Your task to perform on an android device: Add usb-c to usb-b to the cart on costco Image 0: 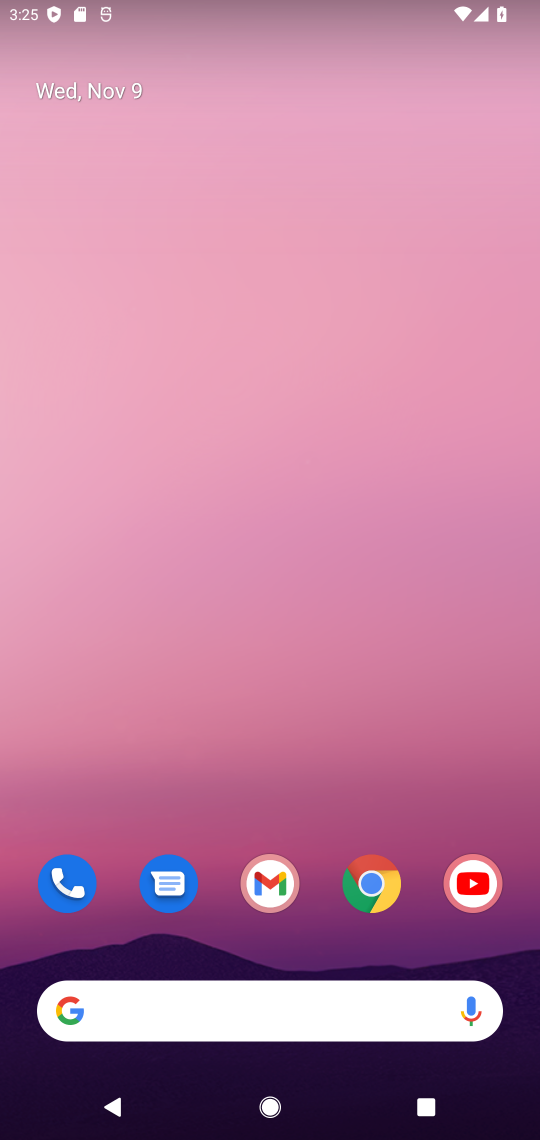
Step 0: click (380, 873)
Your task to perform on an android device: Add usb-c to usb-b to the cart on costco Image 1: 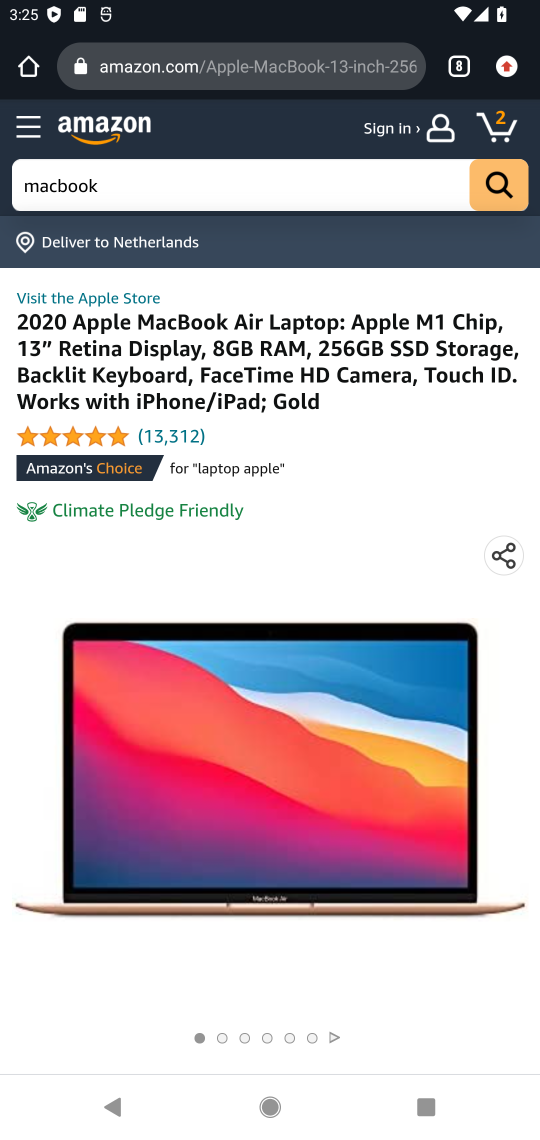
Step 1: click (460, 71)
Your task to perform on an android device: Add usb-c to usb-b to the cart on costco Image 2: 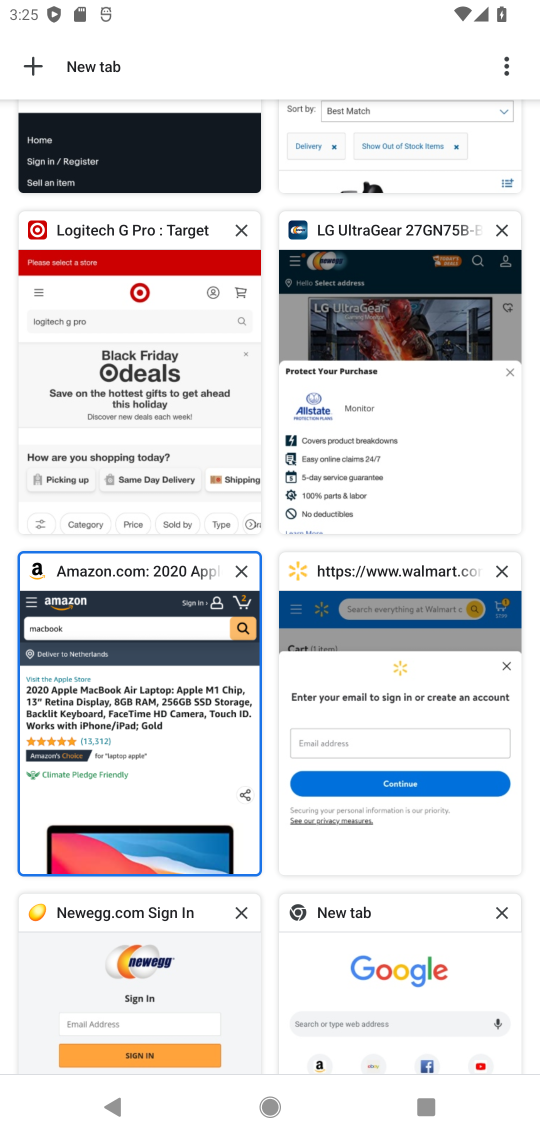
Step 2: drag from (347, 162) to (301, 628)
Your task to perform on an android device: Add usb-c to usb-b to the cart on costco Image 3: 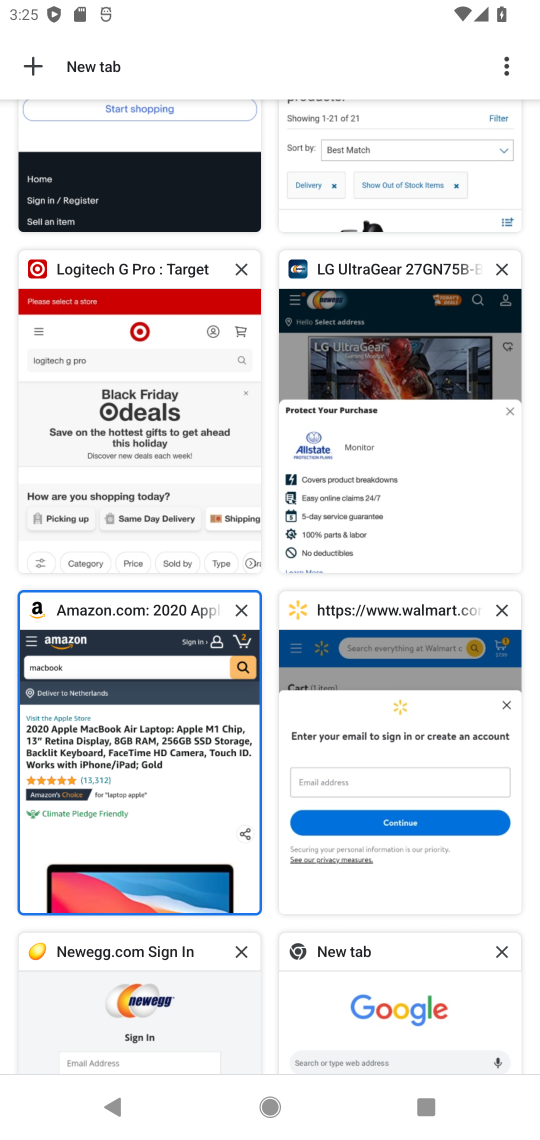
Step 3: click (393, 143)
Your task to perform on an android device: Add usb-c to usb-b to the cart on costco Image 4: 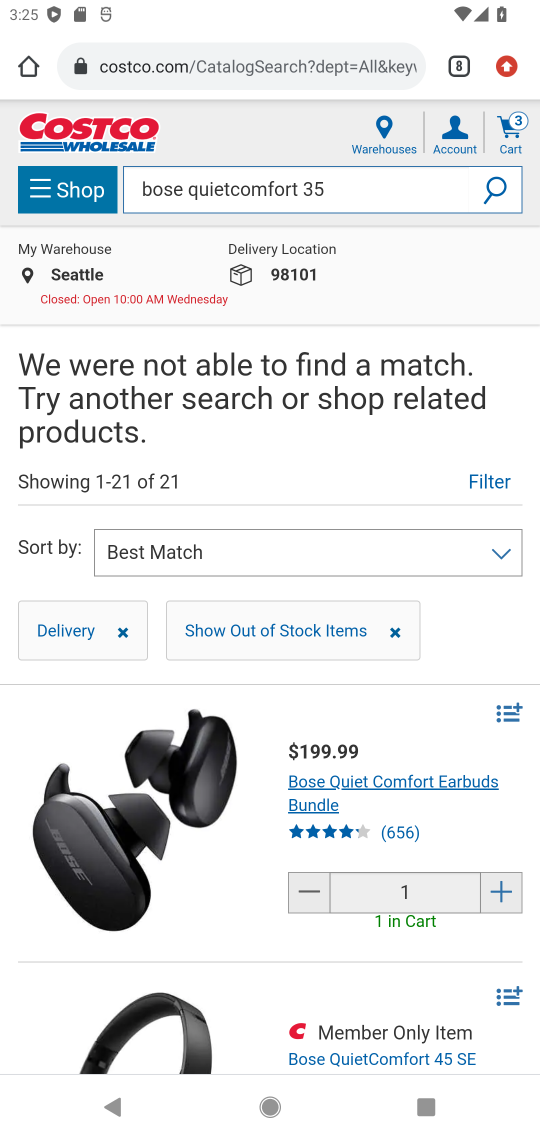
Step 4: click (256, 191)
Your task to perform on an android device: Add usb-c to usb-b to the cart on costco Image 5: 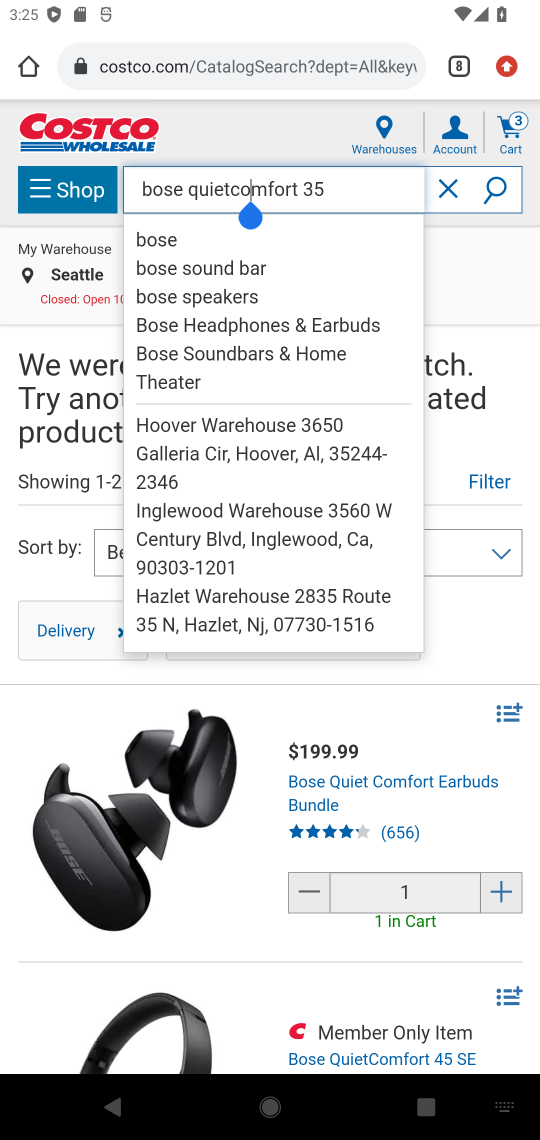
Step 5: click (451, 182)
Your task to perform on an android device: Add usb-c to usb-b to the cart on costco Image 6: 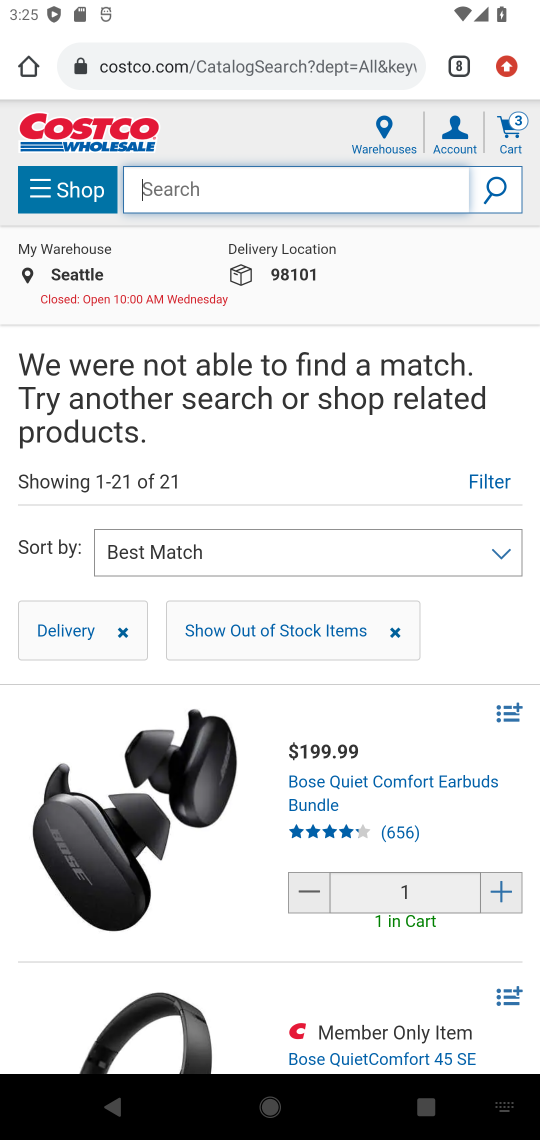
Step 6: type "usb-c to usb-b"
Your task to perform on an android device: Add usb-c to usb-b to the cart on costco Image 7: 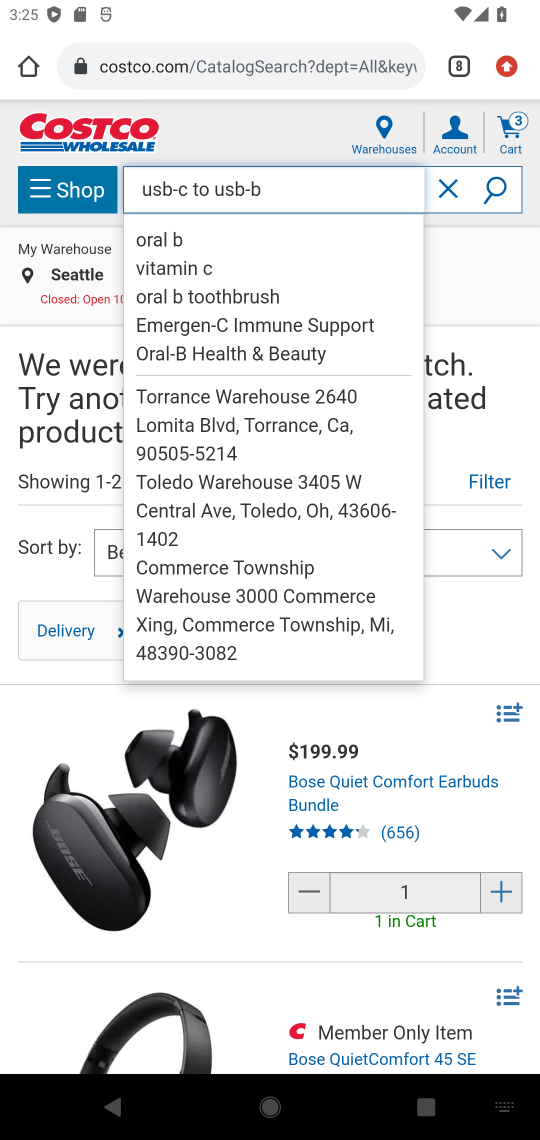
Step 7: click (490, 187)
Your task to perform on an android device: Add usb-c to usb-b to the cart on costco Image 8: 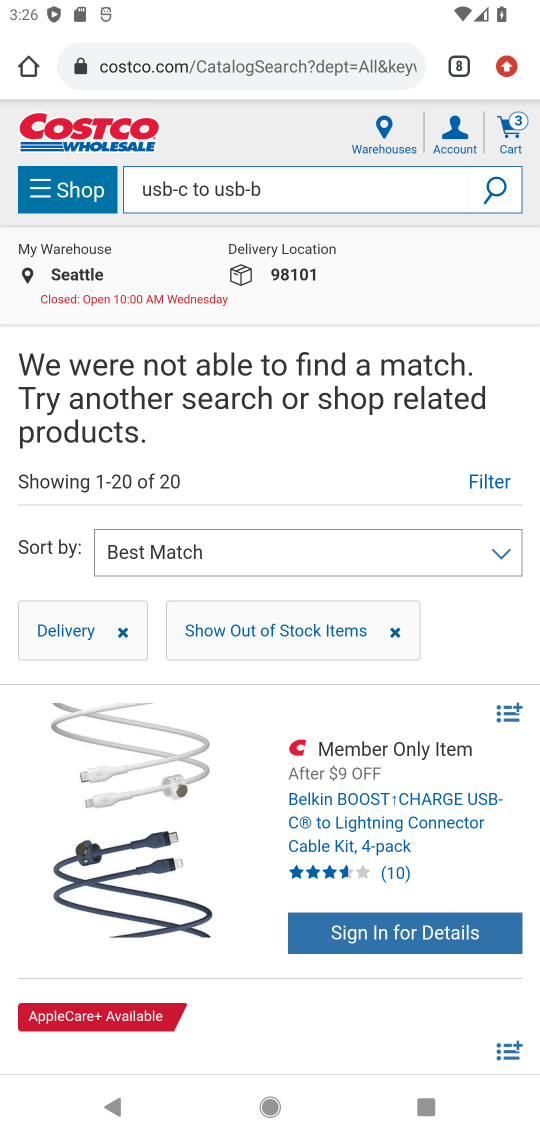
Step 8: click (349, 816)
Your task to perform on an android device: Add usb-c to usb-b to the cart on costco Image 9: 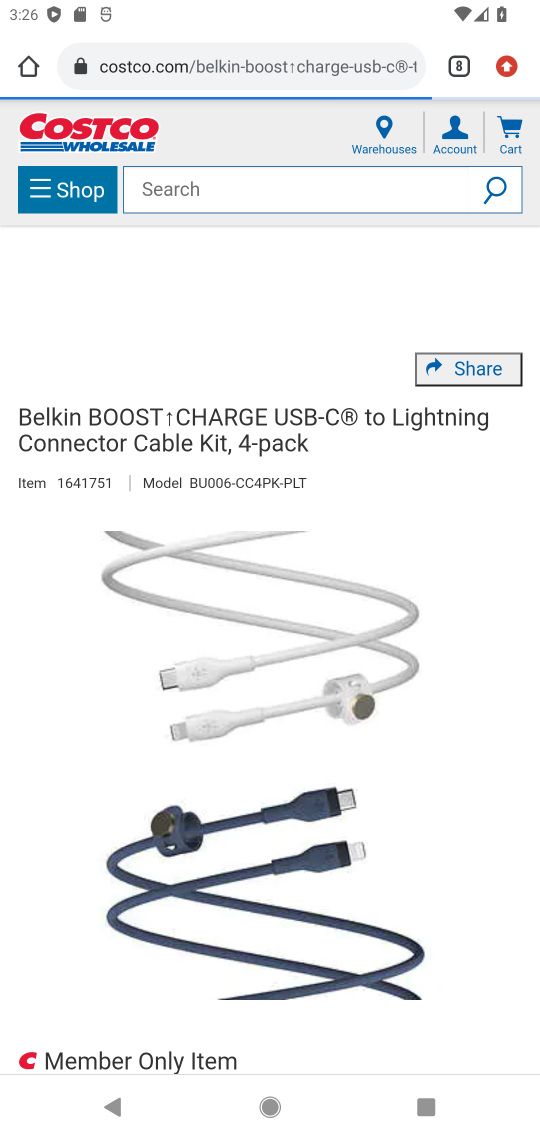
Step 9: task complete